Your task to perform on an android device: Search for pizza restaurants on Maps Image 0: 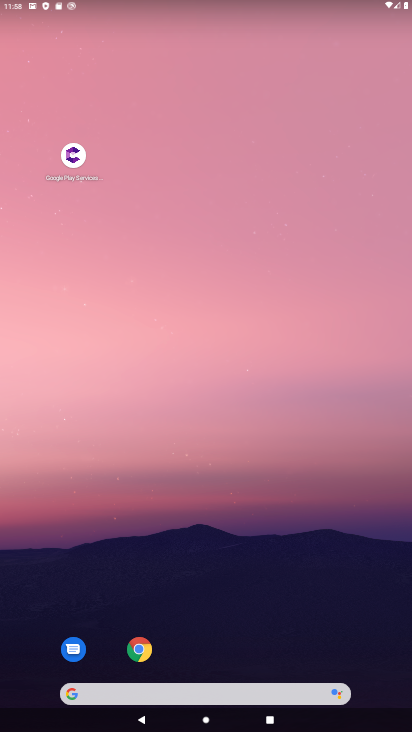
Step 0: drag from (175, 670) to (175, 171)
Your task to perform on an android device: Search for pizza restaurants on Maps Image 1: 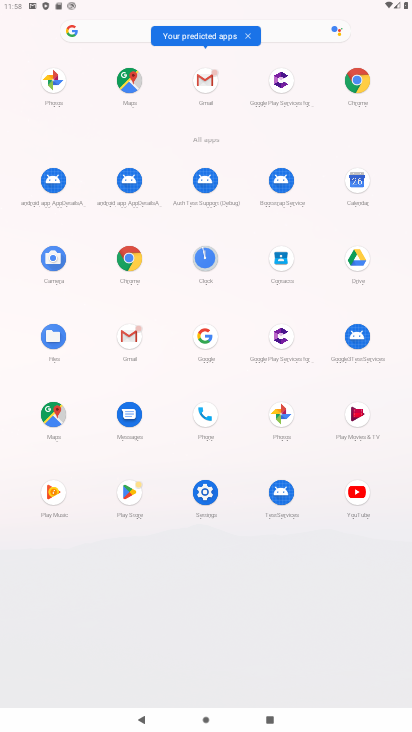
Step 1: click (128, 83)
Your task to perform on an android device: Search for pizza restaurants on Maps Image 2: 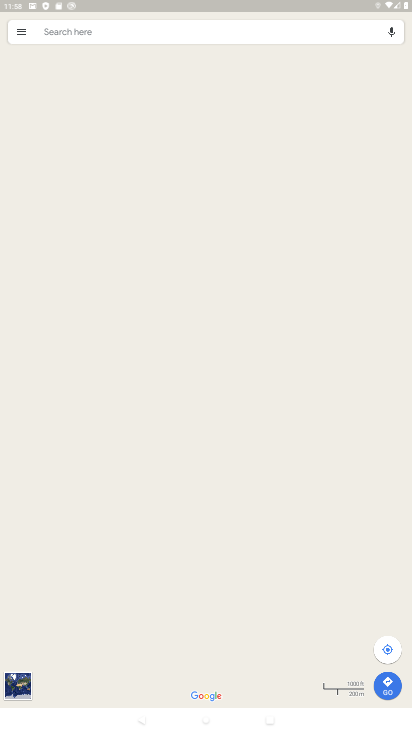
Step 2: click (77, 35)
Your task to perform on an android device: Search for pizza restaurants on Maps Image 3: 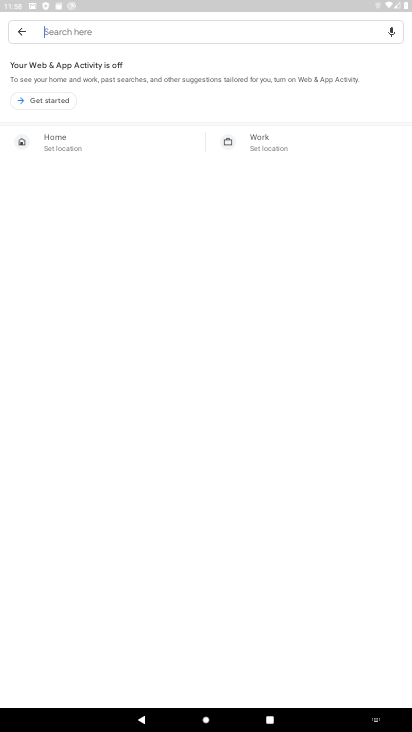
Step 3: click (75, 30)
Your task to perform on an android device: Search for pizza restaurants on Maps Image 4: 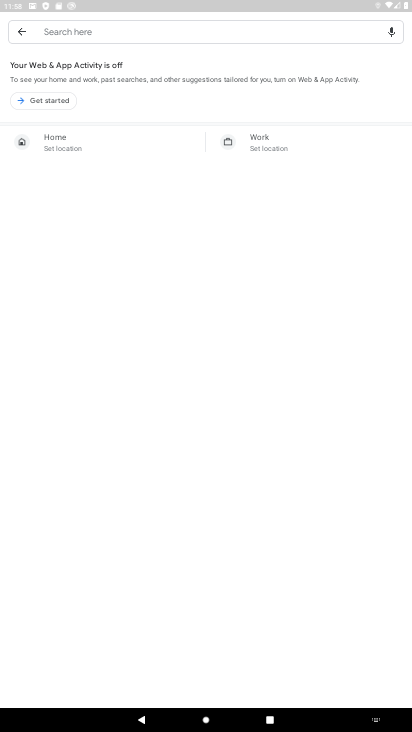
Step 4: click (55, 33)
Your task to perform on an android device: Search for pizza restaurants on Maps Image 5: 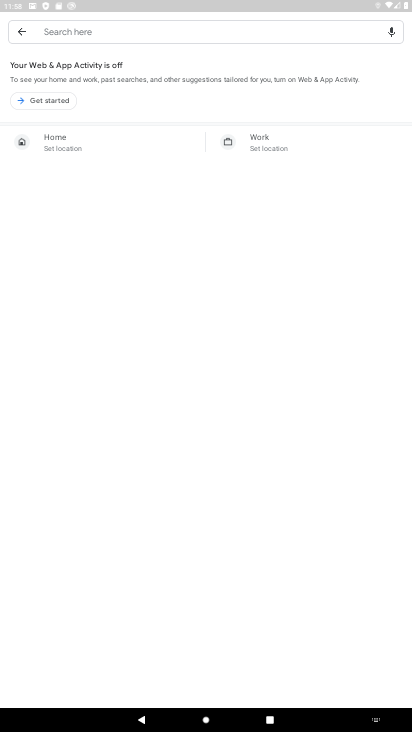
Step 5: click (45, 22)
Your task to perform on an android device: Search for pizza restaurants on Maps Image 6: 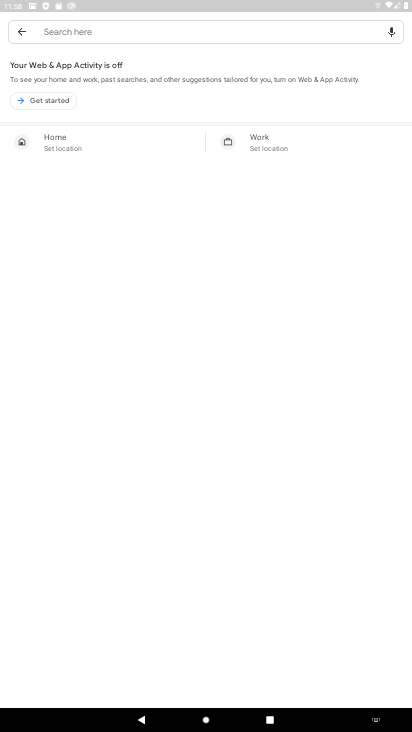
Step 6: click (41, 29)
Your task to perform on an android device: Search for pizza restaurants on Maps Image 7: 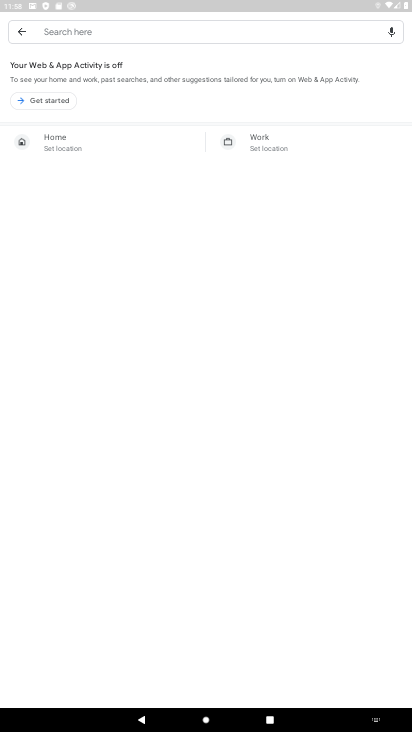
Step 7: click (35, 22)
Your task to perform on an android device: Search for pizza restaurants on Maps Image 8: 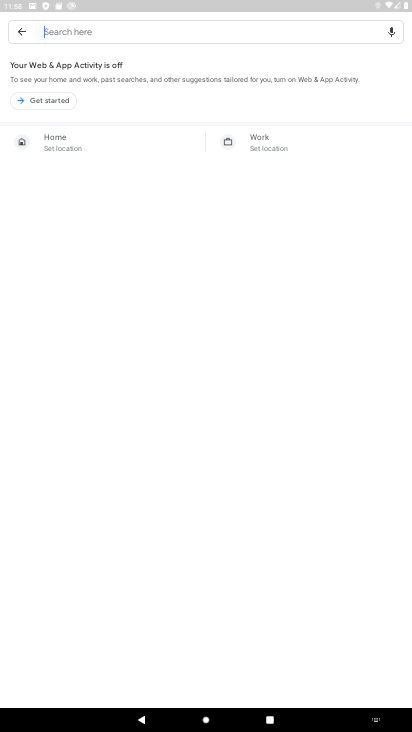
Step 8: click (37, 32)
Your task to perform on an android device: Search for pizza restaurants on Maps Image 9: 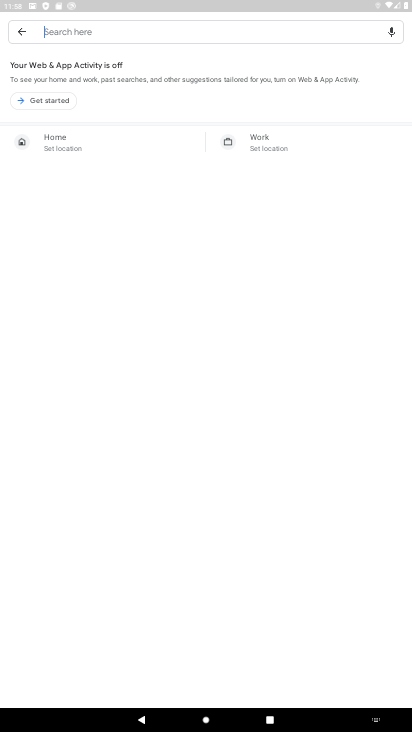
Step 9: click (54, 27)
Your task to perform on an android device: Search for pizza restaurants on Maps Image 10: 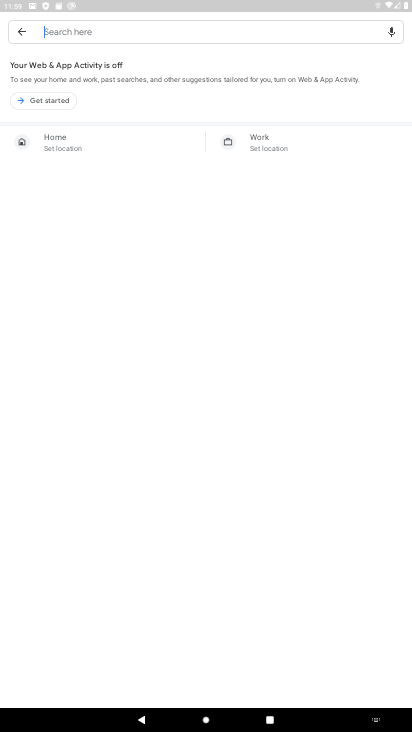
Step 10: click (54, 27)
Your task to perform on an android device: Search for pizza restaurants on Maps Image 11: 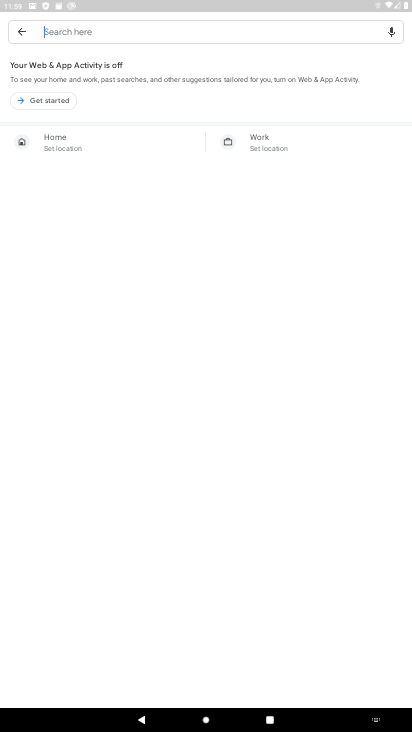
Step 11: click (54, 27)
Your task to perform on an android device: Search for pizza restaurants on Maps Image 12: 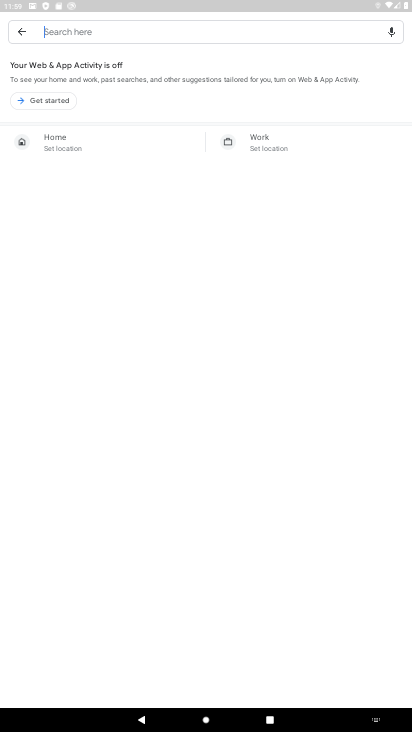
Step 12: click (51, 31)
Your task to perform on an android device: Search for pizza restaurants on Maps Image 13: 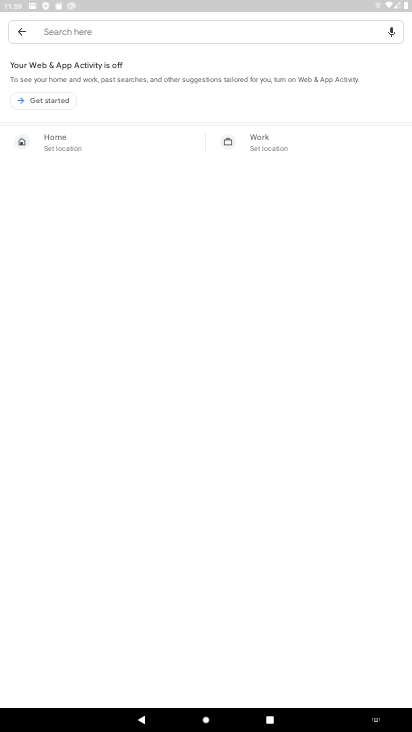
Step 13: click (41, 30)
Your task to perform on an android device: Search for pizza restaurants on Maps Image 14: 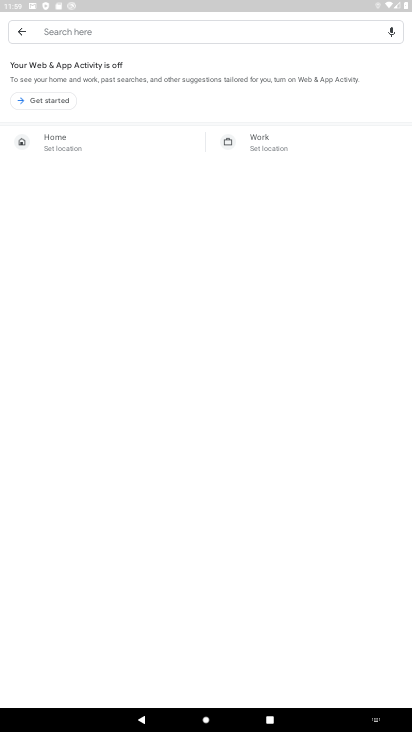
Step 14: click (48, 28)
Your task to perform on an android device: Search for pizza restaurants on Maps Image 15: 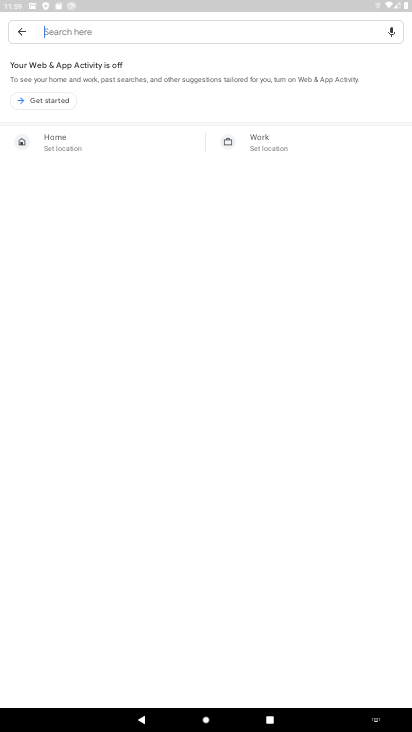
Step 15: click (50, 31)
Your task to perform on an android device: Search for pizza restaurants on Maps Image 16: 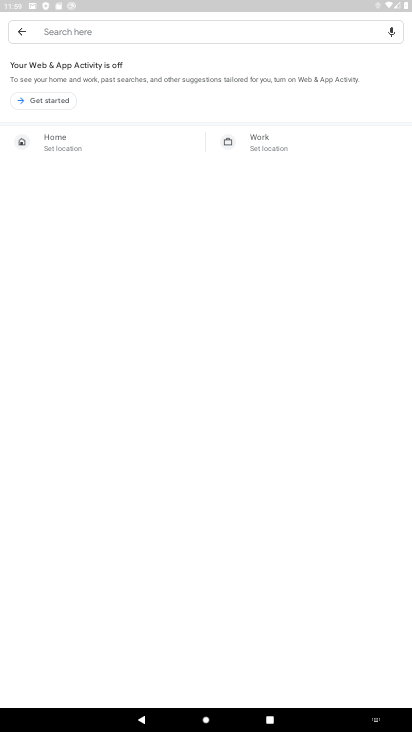
Step 16: type "pizza restaurants"
Your task to perform on an android device: Search for pizza restaurants on Maps Image 17: 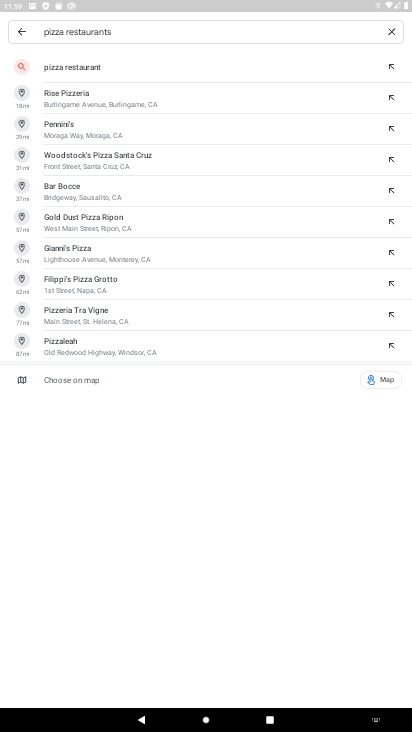
Step 17: click (56, 69)
Your task to perform on an android device: Search for pizza restaurants on Maps Image 18: 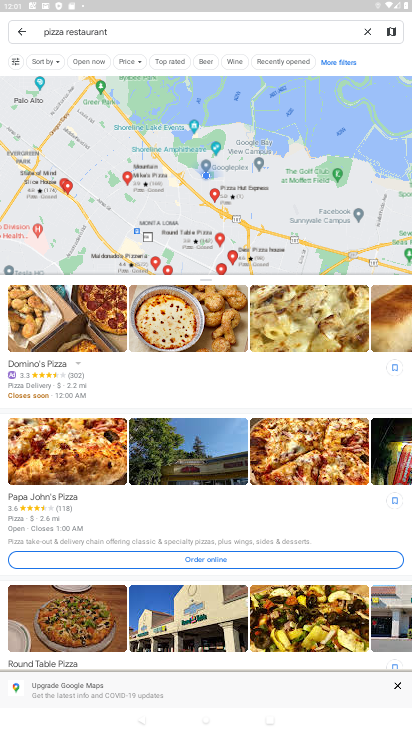
Step 18: task complete